Your task to perform on an android device: turn on the 12-hour format for clock Image 0: 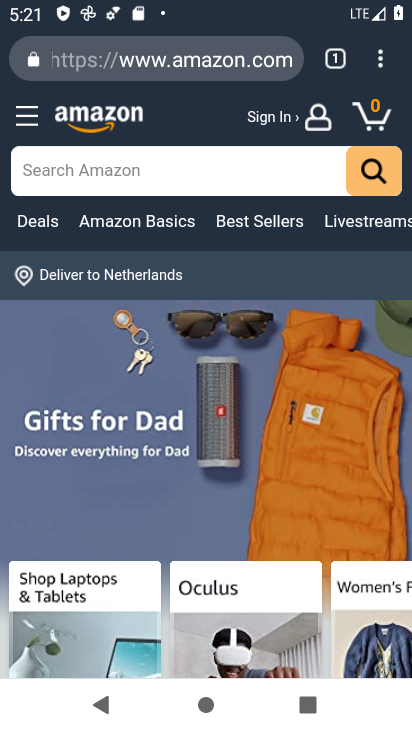
Step 0: press back button
Your task to perform on an android device: turn on the 12-hour format for clock Image 1: 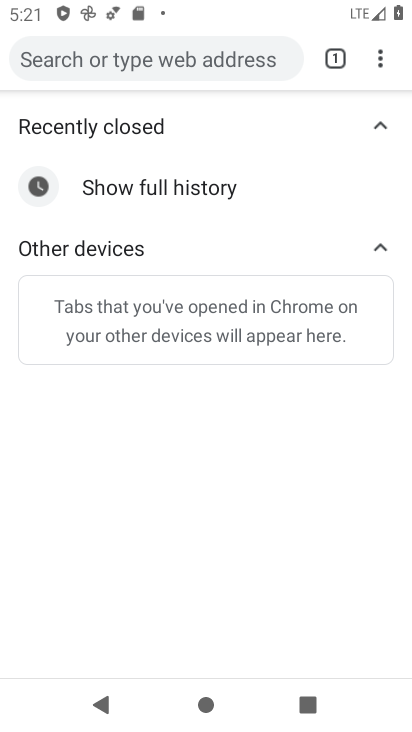
Step 1: press home button
Your task to perform on an android device: turn on the 12-hour format for clock Image 2: 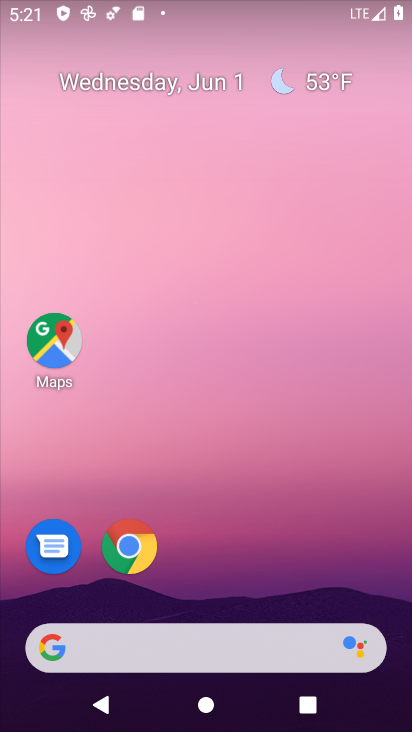
Step 2: drag from (283, 502) to (208, 47)
Your task to perform on an android device: turn on the 12-hour format for clock Image 3: 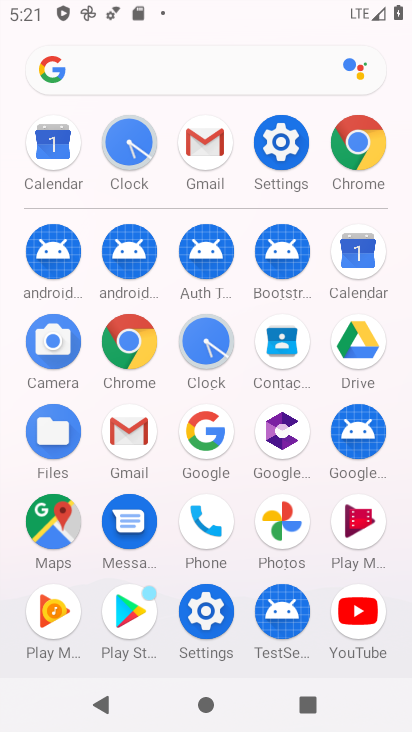
Step 3: click (204, 339)
Your task to perform on an android device: turn on the 12-hour format for clock Image 4: 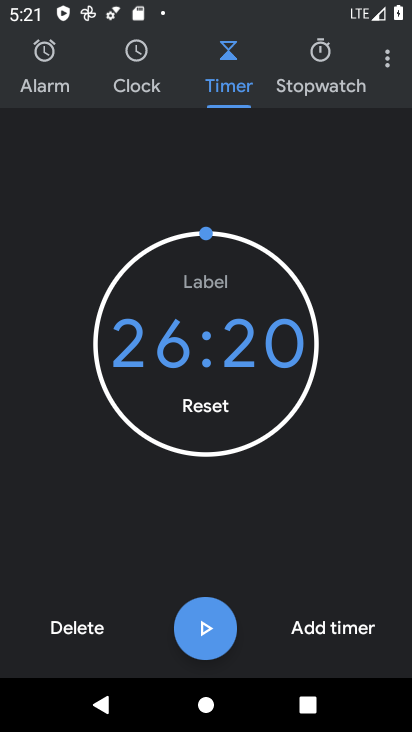
Step 4: drag from (387, 52) to (327, 111)
Your task to perform on an android device: turn on the 12-hour format for clock Image 5: 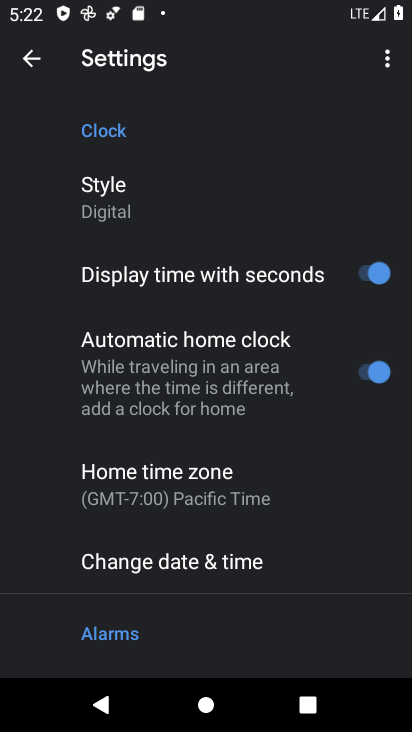
Step 5: drag from (250, 458) to (247, 159)
Your task to perform on an android device: turn on the 12-hour format for clock Image 6: 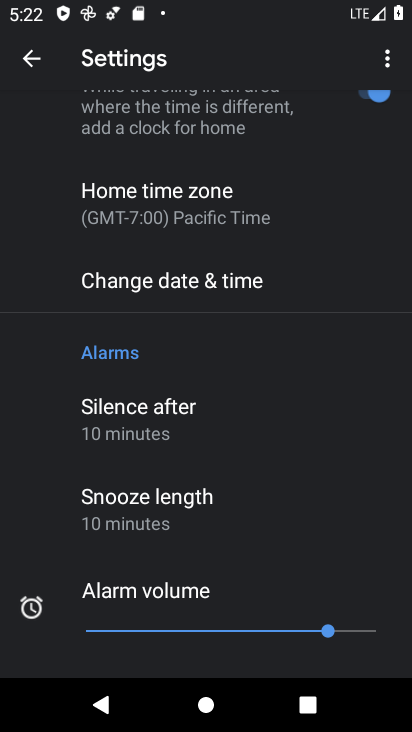
Step 6: click (176, 297)
Your task to perform on an android device: turn on the 12-hour format for clock Image 7: 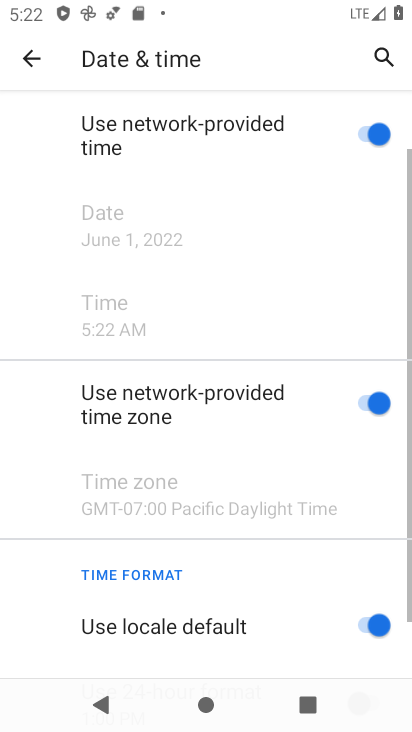
Step 7: task complete